Your task to perform on an android device: manage bookmarks in the chrome app Image 0: 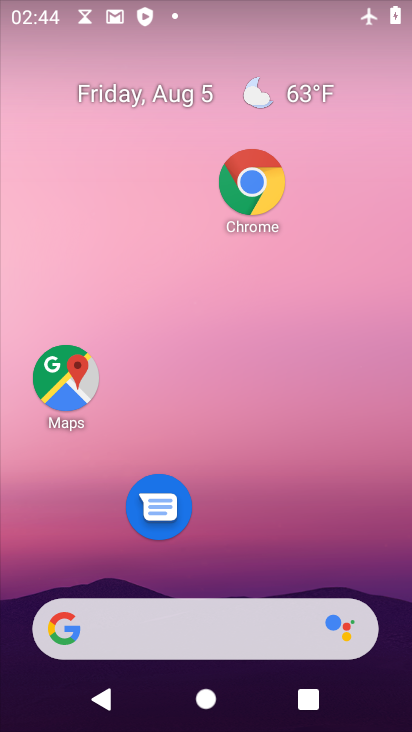
Step 0: drag from (240, 586) to (272, 17)
Your task to perform on an android device: manage bookmarks in the chrome app Image 1: 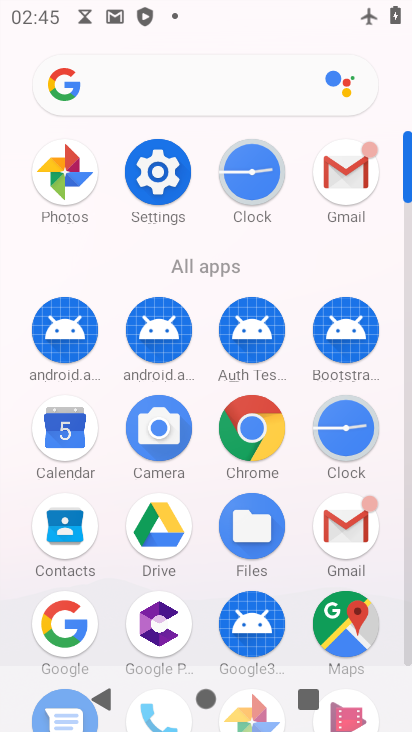
Step 1: click (249, 437)
Your task to perform on an android device: manage bookmarks in the chrome app Image 2: 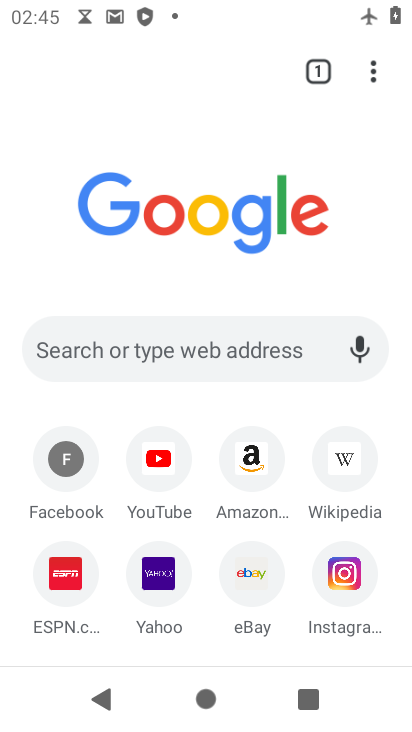
Step 2: click (375, 70)
Your task to perform on an android device: manage bookmarks in the chrome app Image 3: 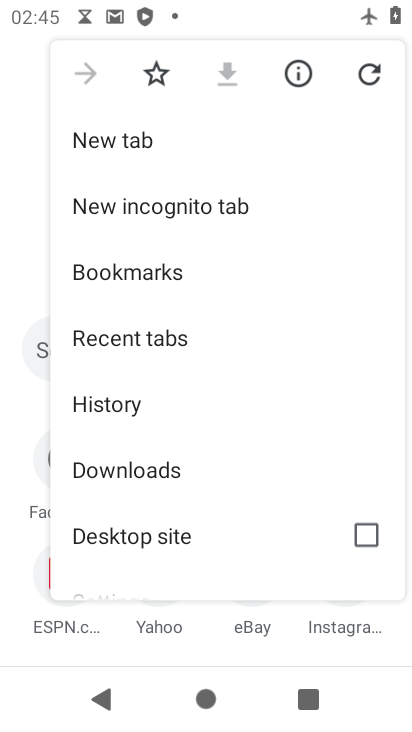
Step 3: click (148, 280)
Your task to perform on an android device: manage bookmarks in the chrome app Image 4: 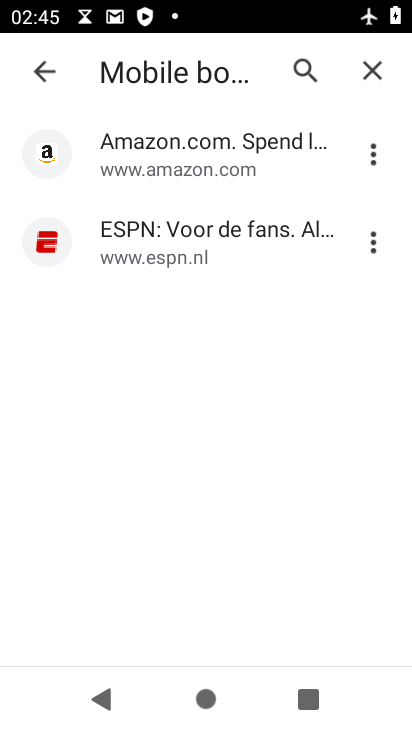
Step 4: click (367, 148)
Your task to perform on an android device: manage bookmarks in the chrome app Image 5: 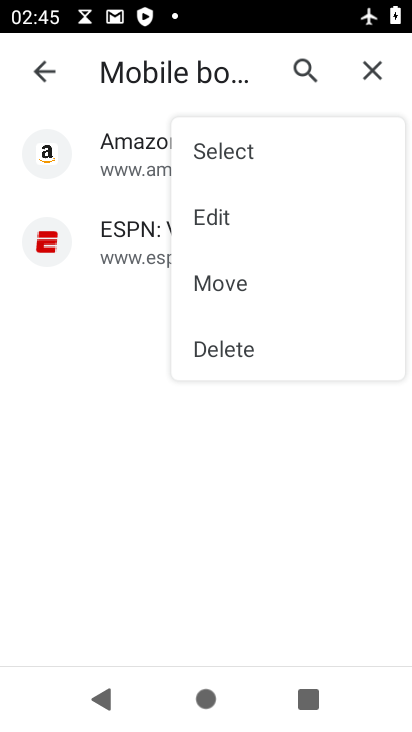
Step 5: click (266, 147)
Your task to perform on an android device: manage bookmarks in the chrome app Image 6: 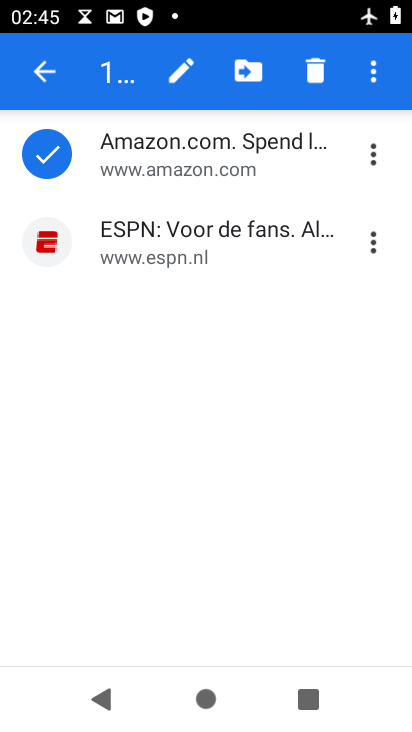
Step 6: click (57, 241)
Your task to perform on an android device: manage bookmarks in the chrome app Image 7: 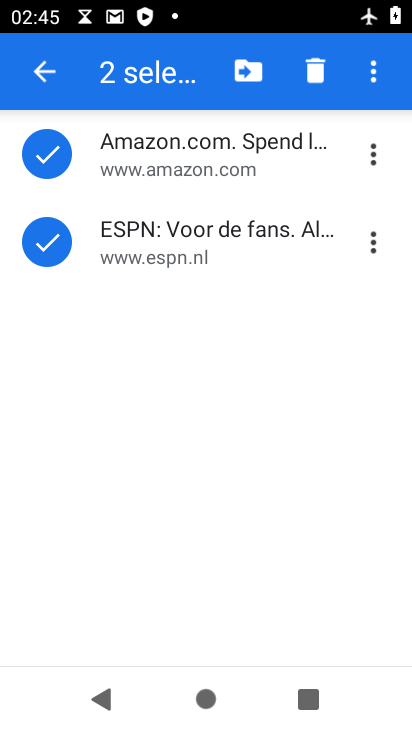
Step 7: click (246, 74)
Your task to perform on an android device: manage bookmarks in the chrome app Image 8: 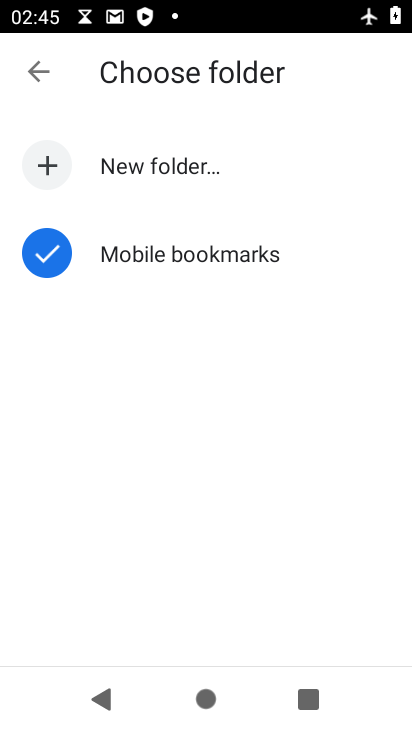
Step 8: click (194, 171)
Your task to perform on an android device: manage bookmarks in the chrome app Image 9: 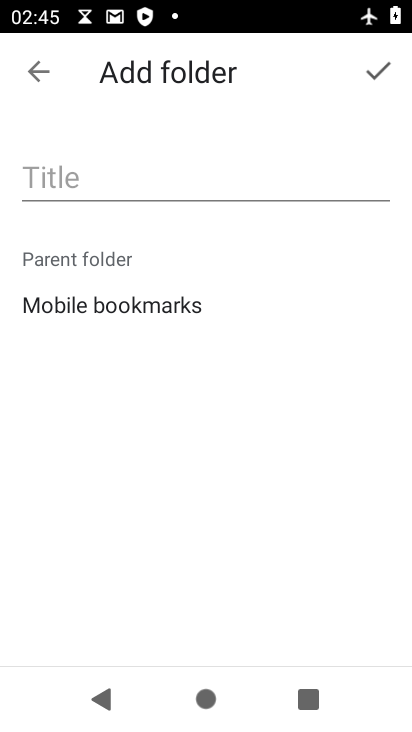
Step 9: click (203, 177)
Your task to perform on an android device: manage bookmarks in the chrome app Image 10: 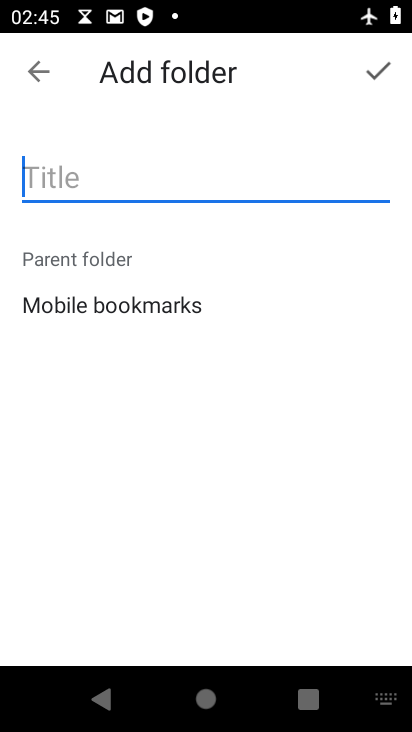
Step 10: type "jhuth"
Your task to perform on an android device: manage bookmarks in the chrome app Image 11: 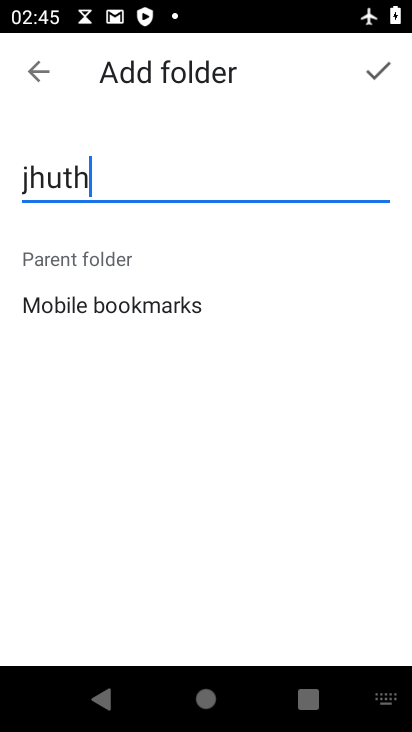
Step 11: click (372, 65)
Your task to perform on an android device: manage bookmarks in the chrome app Image 12: 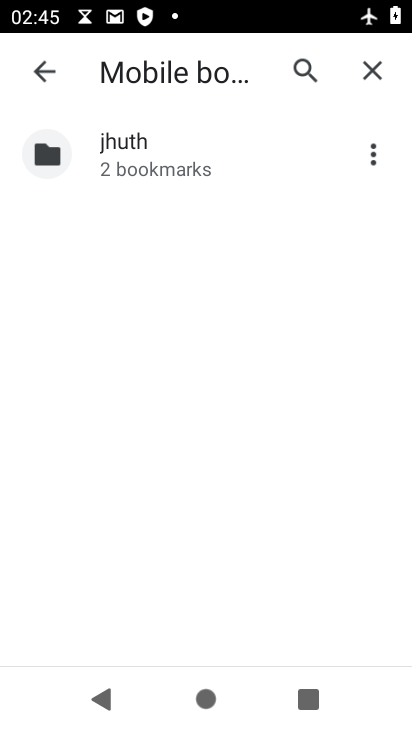
Step 12: task complete